Your task to perform on an android device: Turn on the flashlight Image 0: 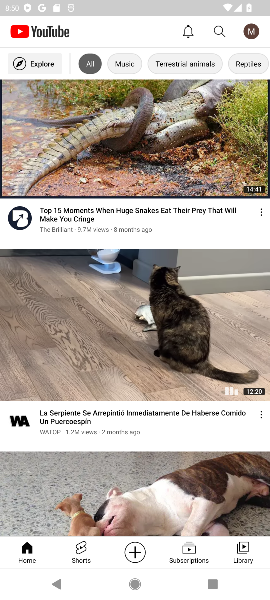
Step 0: press home button
Your task to perform on an android device: Turn on the flashlight Image 1: 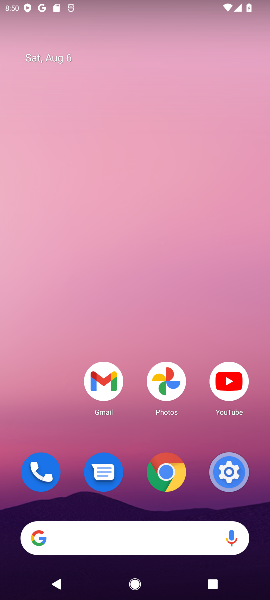
Step 1: click (236, 467)
Your task to perform on an android device: Turn on the flashlight Image 2: 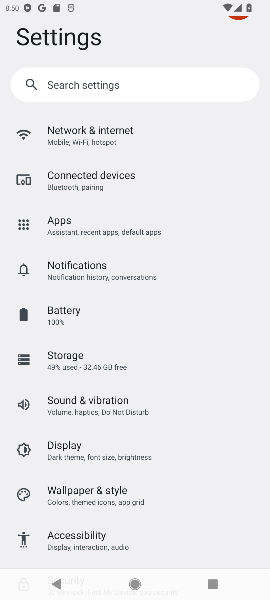
Step 2: click (73, 455)
Your task to perform on an android device: Turn on the flashlight Image 3: 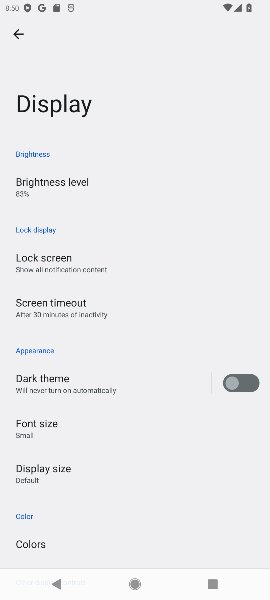
Step 3: click (57, 301)
Your task to perform on an android device: Turn on the flashlight Image 4: 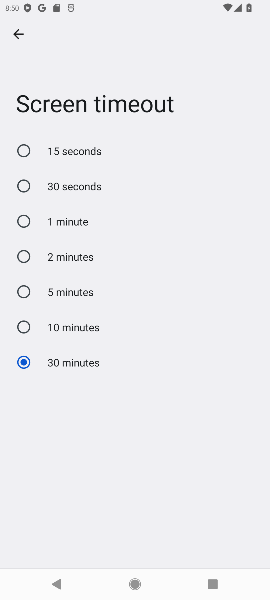
Step 4: click (17, 31)
Your task to perform on an android device: Turn on the flashlight Image 5: 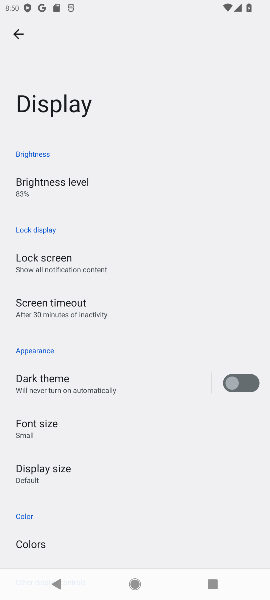
Step 5: task complete